Your task to perform on an android device: turn on bluetooth scan Image 0: 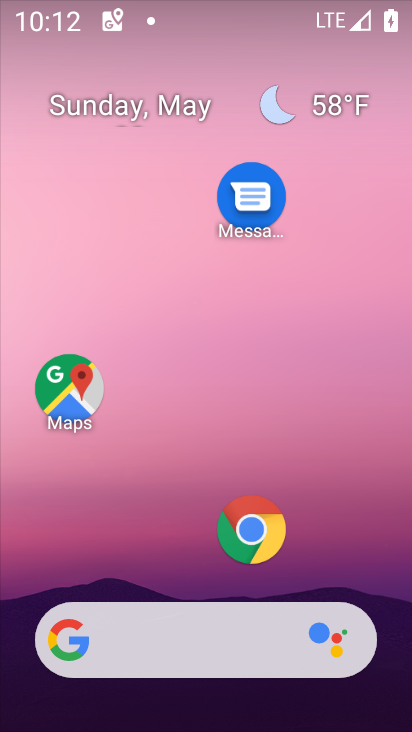
Step 0: drag from (179, 555) to (117, 14)
Your task to perform on an android device: turn on bluetooth scan Image 1: 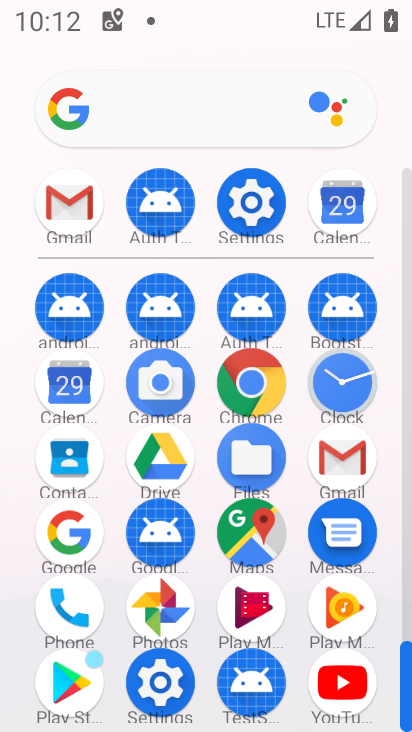
Step 1: click (258, 217)
Your task to perform on an android device: turn on bluetooth scan Image 2: 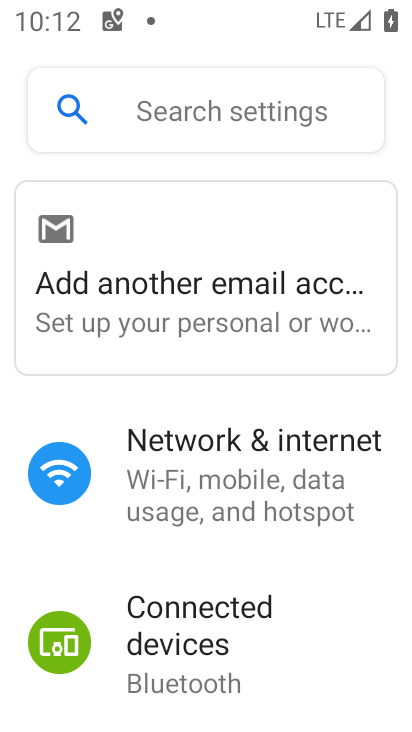
Step 2: drag from (228, 623) to (271, 114)
Your task to perform on an android device: turn on bluetooth scan Image 3: 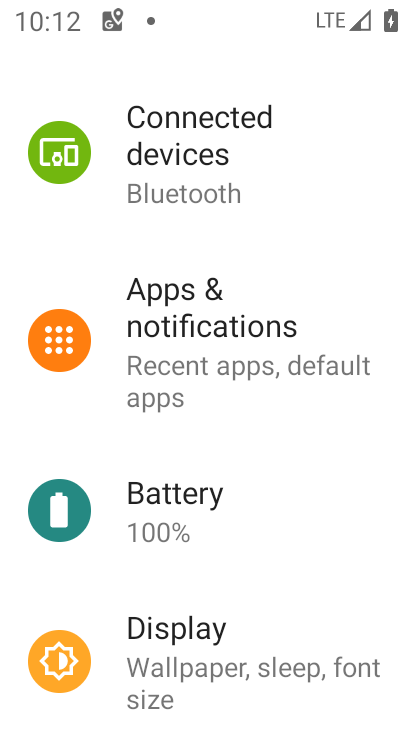
Step 3: drag from (190, 576) to (269, 10)
Your task to perform on an android device: turn on bluetooth scan Image 4: 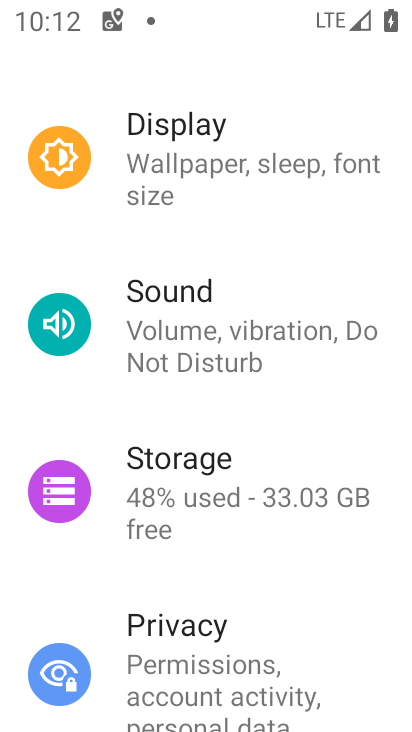
Step 4: drag from (212, 611) to (239, 140)
Your task to perform on an android device: turn on bluetooth scan Image 5: 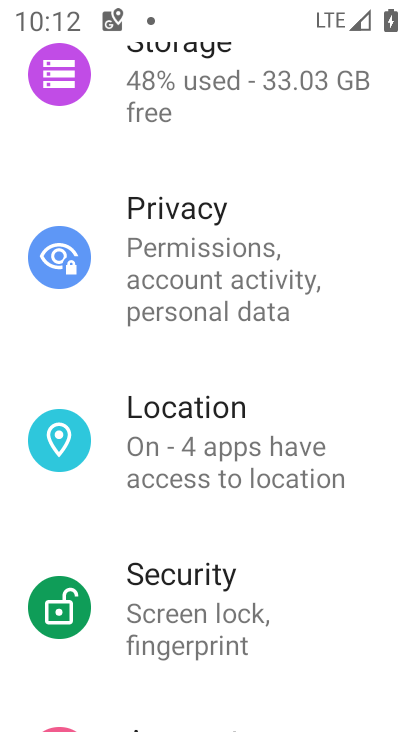
Step 5: click (208, 444)
Your task to perform on an android device: turn on bluetooth scan Image 6: 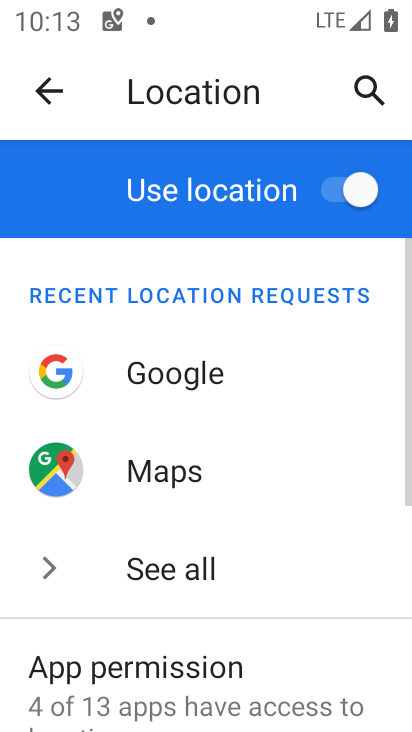
Step 6: drag from (191, 592) to (205, 312)
Your task to perform on an android device: turn on bluetooth scan Image 7: 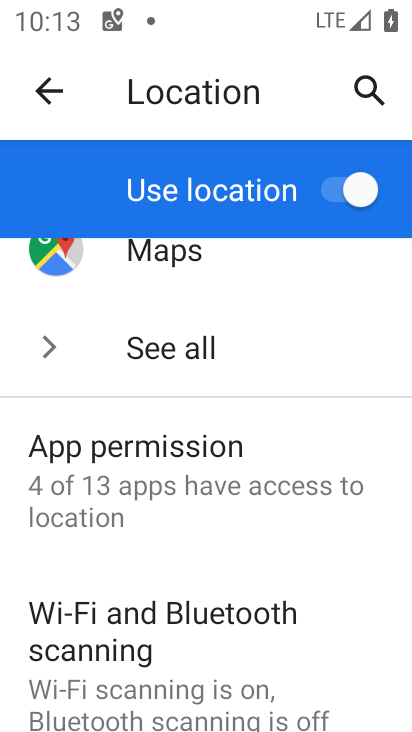
Step 7: drag from (224, 580) to (245, 320)
Your task to perform on an android device: turn on bluetooth scan Image 8: 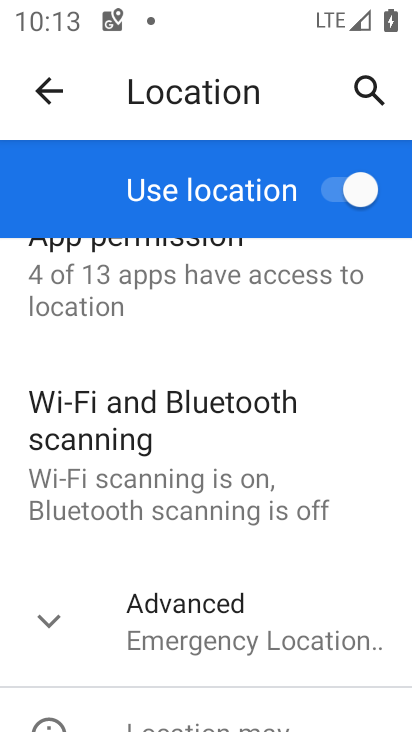
Step 8: click (165, 471)
Your task to perform on an android device: turn on bluetooth scan Image 9: 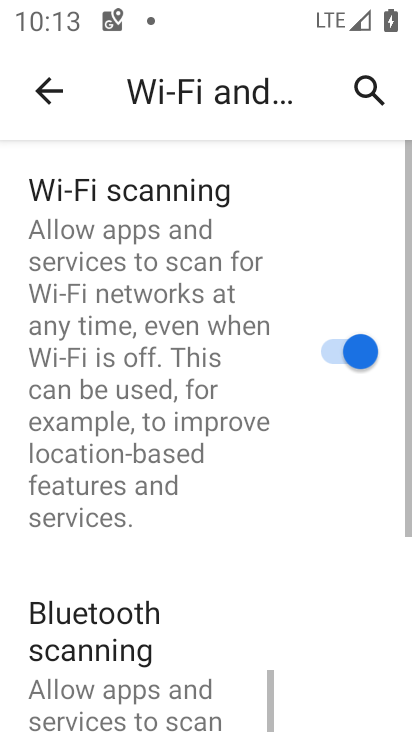
Step 9: drag from (181, 573) to (234, 308)
Your task to perform on an android device: turn on bluetooth scan Image 10: 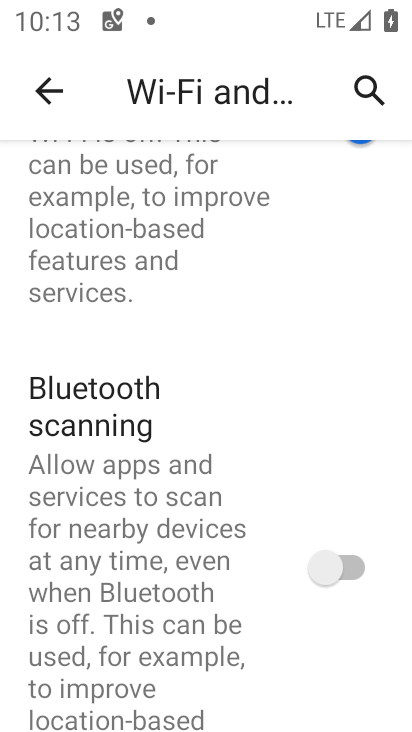
Step 10: click (353, 553)
Your task to perform on an android device: turn on bluetooth scan Image 11: 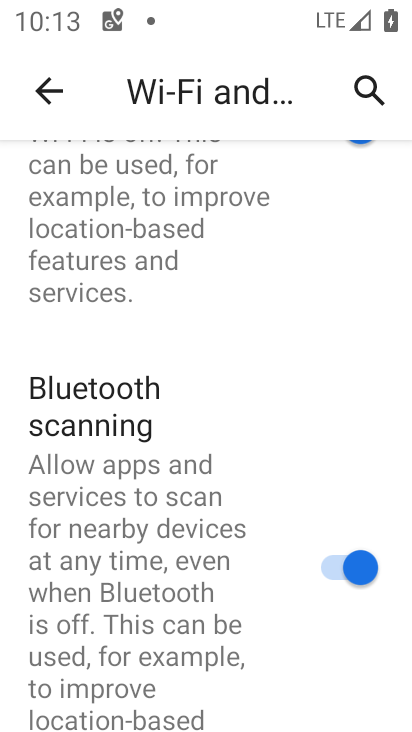
Step 11: task complete